Your task to perform on an android device: turn off smart reply in the gmail app Image 0: 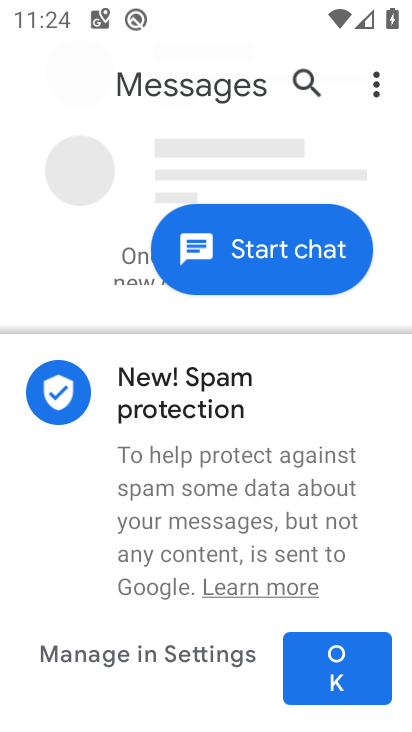
Step 0: press home button
Your task to perform on an android device: turn off smart reply in the gmail app Image 1: 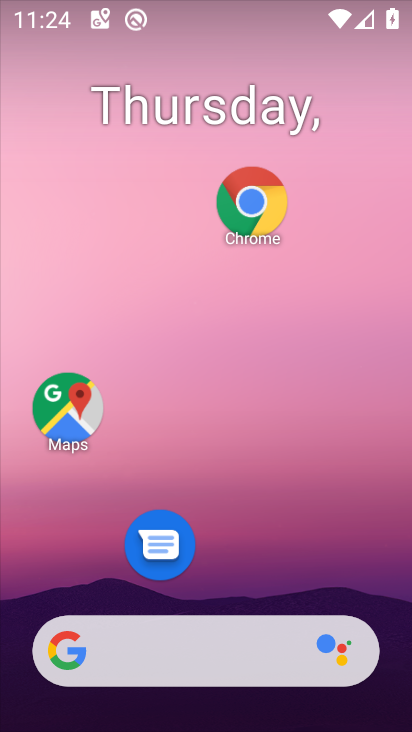
Step 1: drag from (232, 554) to (226, 12)
Your task to perform on an android device: turn off smart reply in the gmail app Image 2: 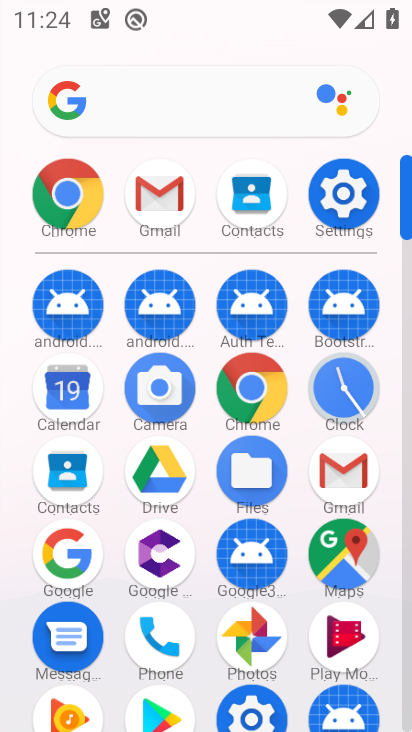
Step 2: click (151, 204)
Your task to perform on an android device: turn off smart reply in the gmail app Image 3: 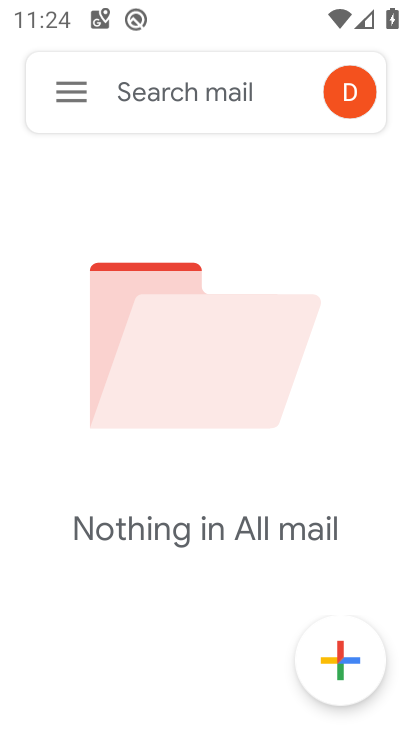
Step 3: click (62, 95)
Your task to perform on an android device: turn off smart reply in the gmail app Image 4: 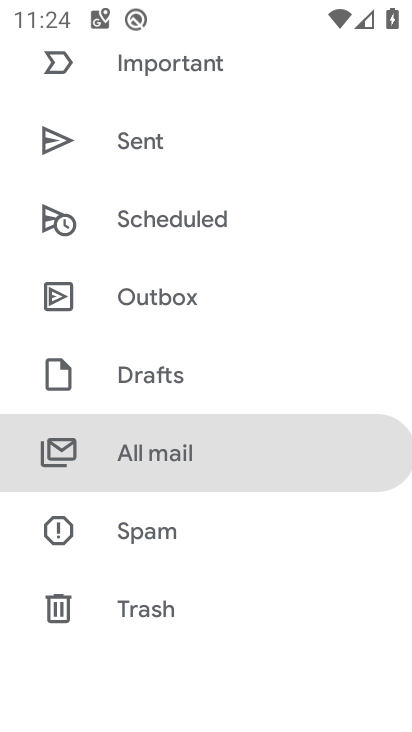
Step 4: drag from (188, 608) to (206, 302)
Your task to perform on an android device: turn off smart reply in the gmail app Image 5: 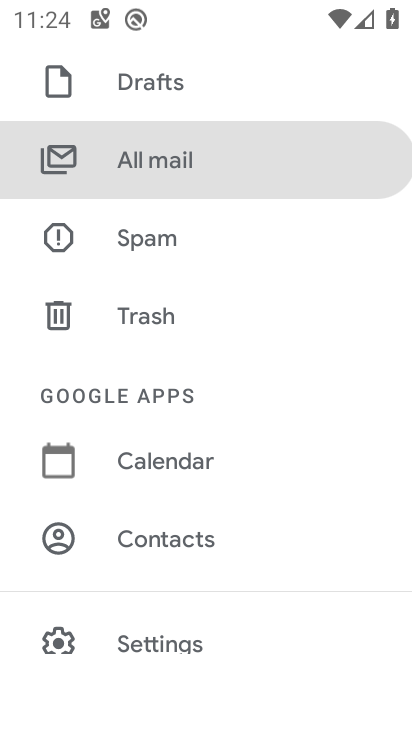
Step 5: click (125, 644)
Your task to perform on an android device: turn off smart reply in the gmail app Image 6: 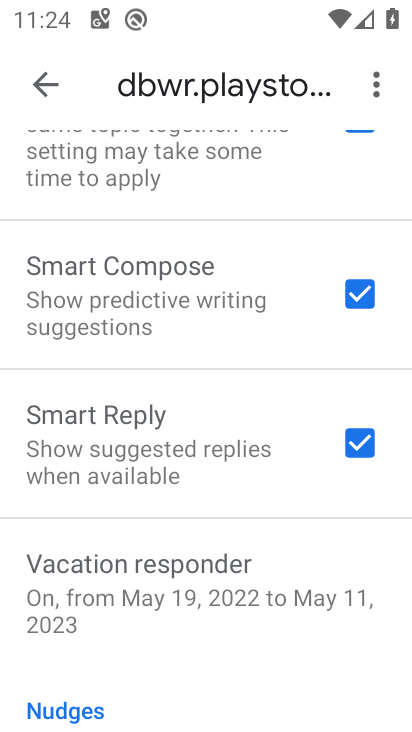
Step 6: click (366, 442)
Your task to perform on an android device: turn off smart reply in the gmail app Image 7: 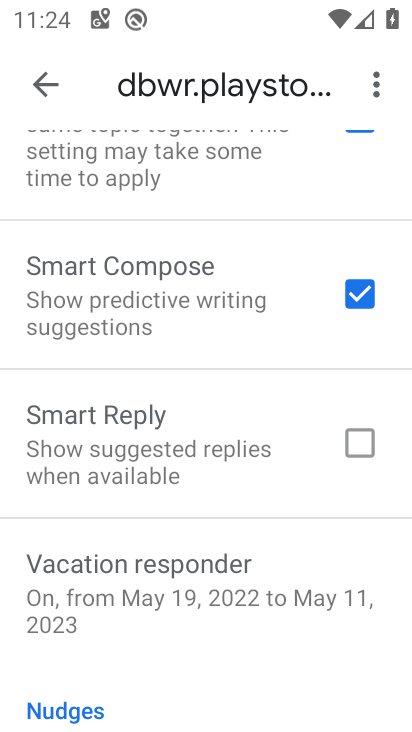
Step 7: task complete